Your task to perform on an android device: Open CNN.com Image 0: 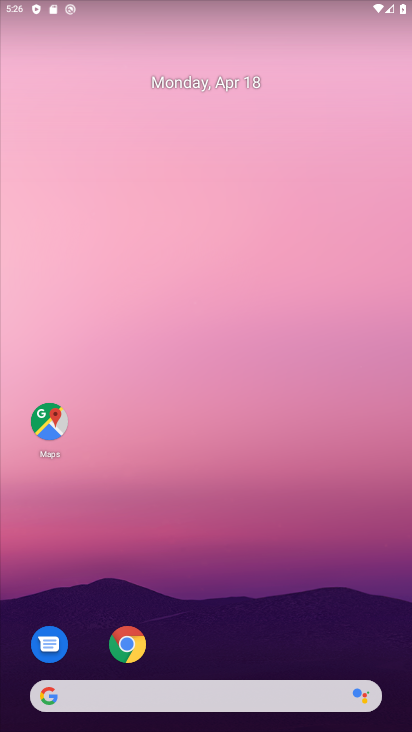
Step 0: click (126, 644)
Your task to perform on an android device: Open CNN.com Image 1: 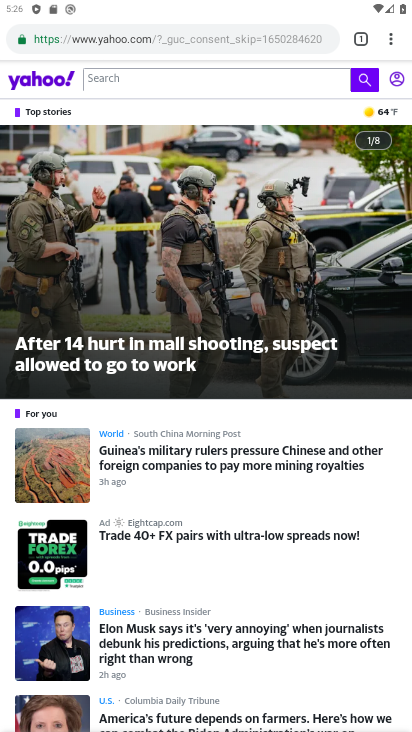
Step 1: click (349, 44)
Your task to perform on an android device: Open CNN.com Image 2: 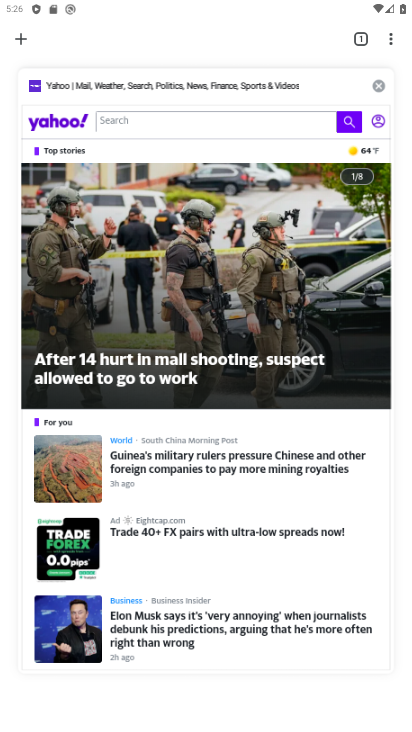
Step 2: click (24, 44)
Your task to perform on an android device: Open CNN.com Image 3: 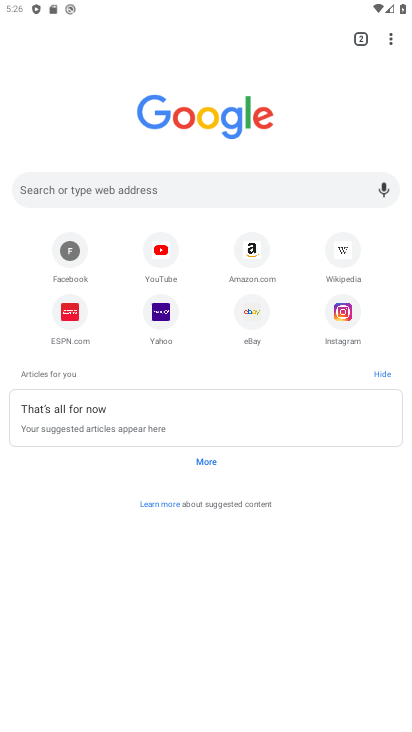
Step 3: click (115, 185)
Your task to perform on an android device: Open CNN.com Image 4: 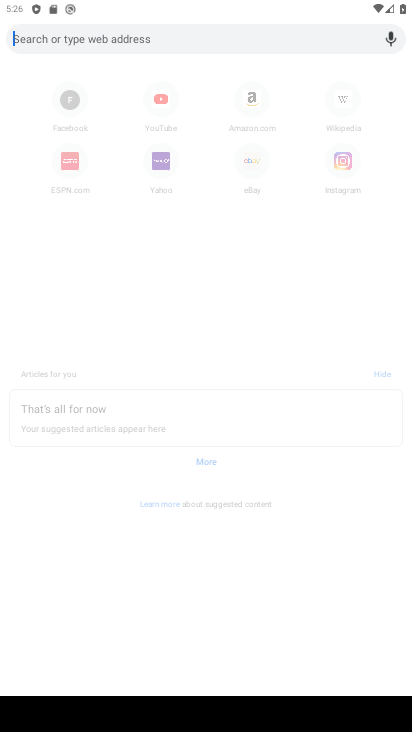
Step 4: type "cnn.com"
Your task to perform on an android device: Open CNN.com Image 5: 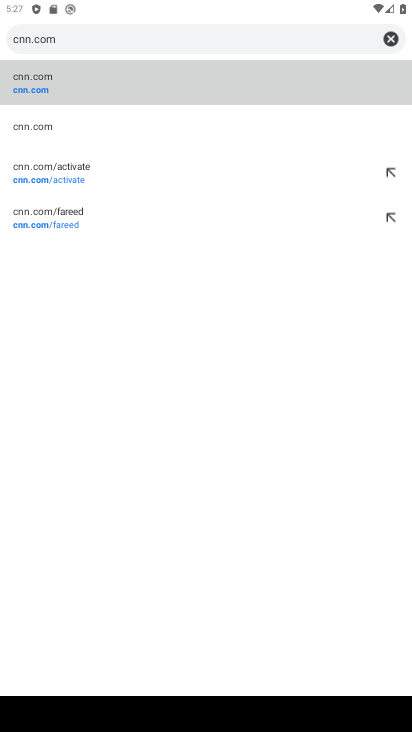
Step 5: click (64, 91)
Your task to perform on an android device: Open CNN.com Image 6: 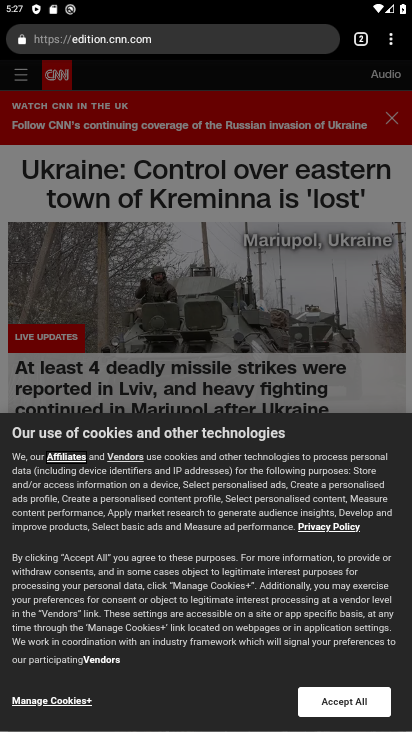
Step 6: task complete